Your task to perform on an android device: toggle pop-ups in chrome Image 0: 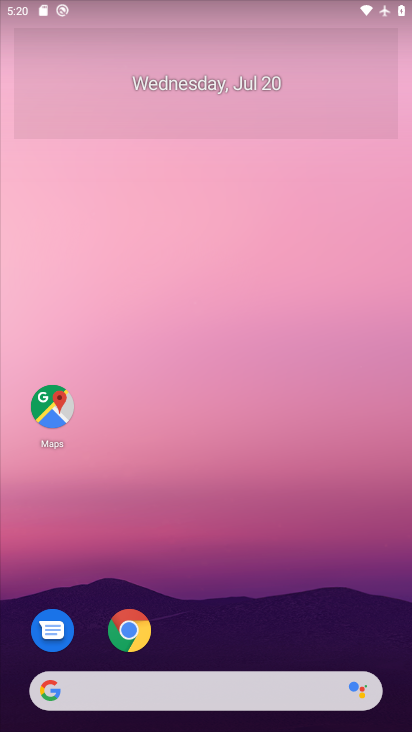
Step 0: drag from (232, 629) to (407, 2)
Your task to perform on an android device: toggle pop-ups in chrome Image 1: 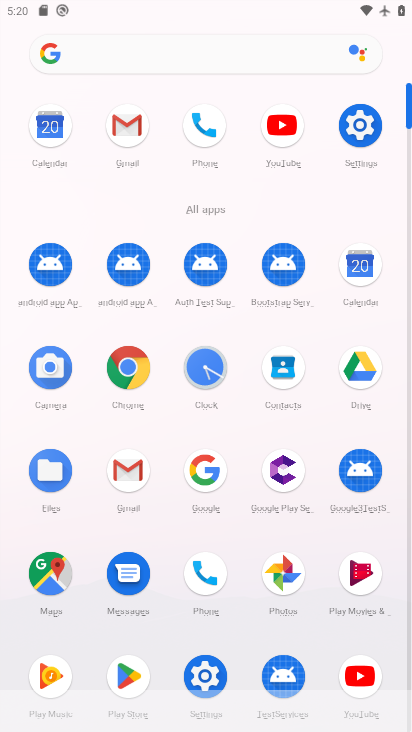
Step 1: click (129, 370)
Your task to perform on an android device: toggle pop-ups in chrome Image 2: 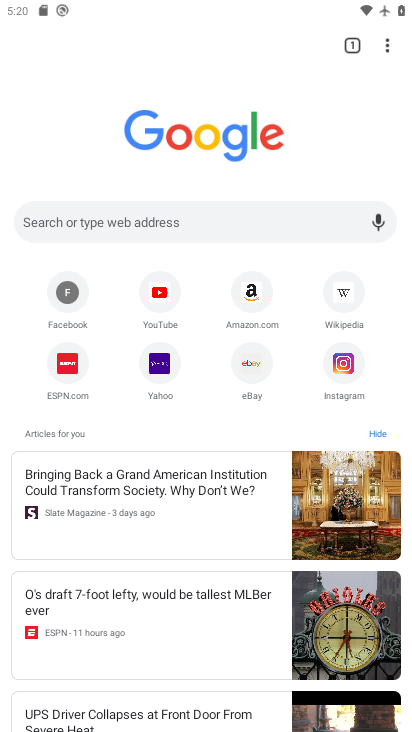
Step 2: drag from (388, 54) to (205, 383)
Your task to perform on an android device: toggle pop-ups in chrome Image 3: 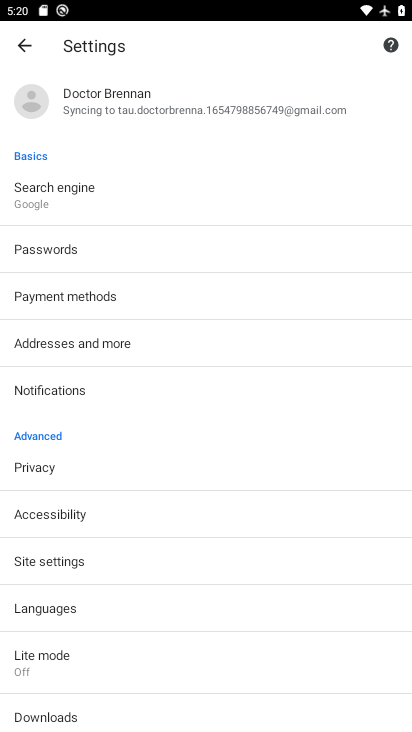
Step 3: click (42, 564)
Your task to perform on an android device: toggle pop-ups in chrome Image 4: 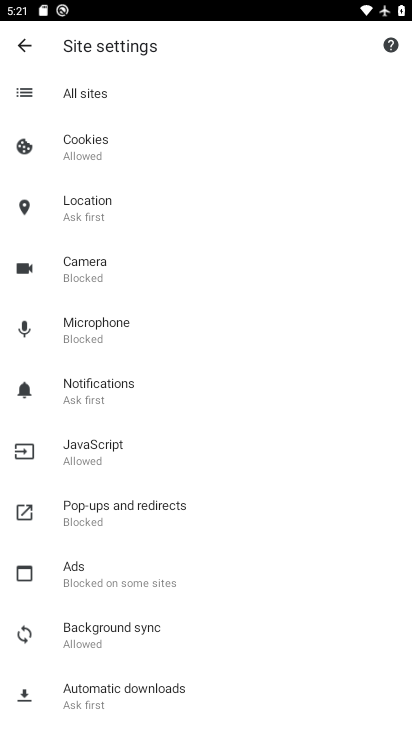
Step 4: click (93, 511)
Your task to perform on an android device: toggle pop-ups in chrome Image 5: 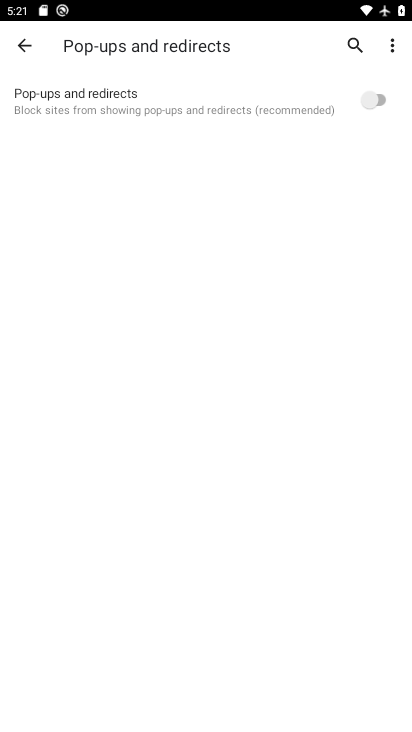
Step 5: click (364, 101)
Your task to perform on an android device: toggle pop-ups in chrome Image 6: 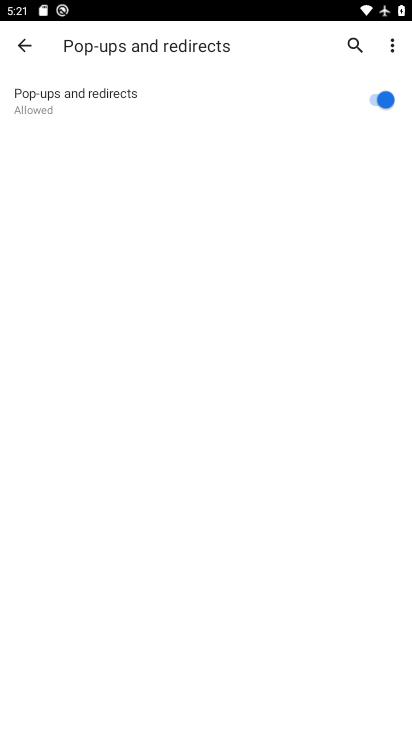
Step 6: task complete